Your task to perform on an android device: turn on improve location accuracy Image 0: 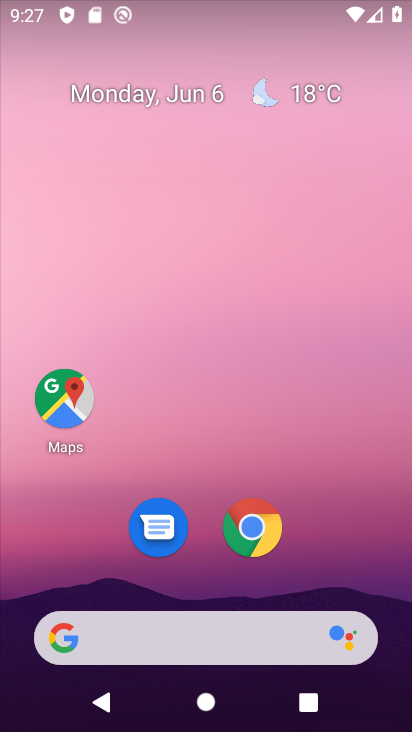
Step 0: drag from (215, 605) to (151, 127)
Your task to perform on an android device: turn on improve location accuracy Image 1: 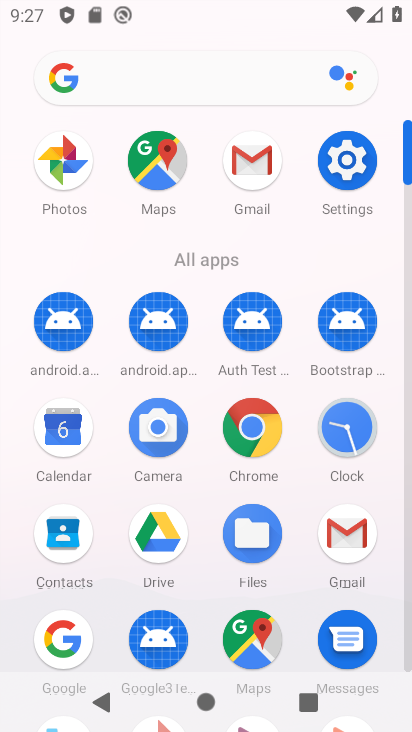
Step 1: click (336, 180)
Your task to perform on an android device: turn on improve location accuracy Image 2: 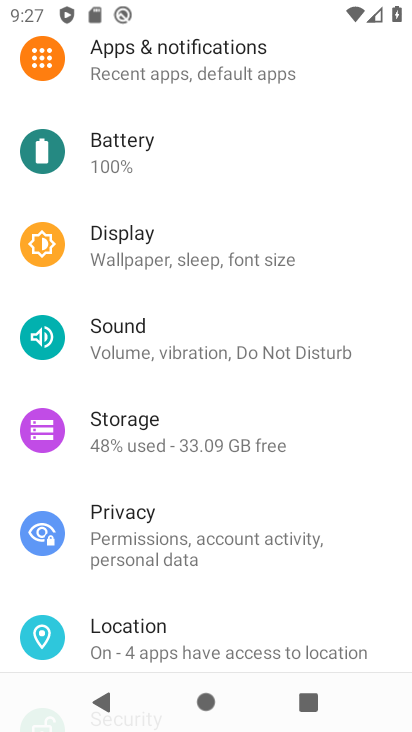
Step 2: click (185, 502)
Your task to perform on an android device: turn on improve location accuracy Image 3: 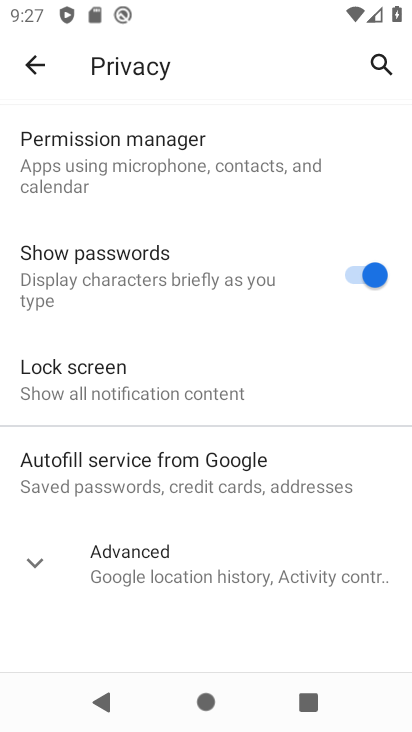
Step 3: click (35, 61)
Your task to perform on an android device: turn on improve location accuracy Image 4: 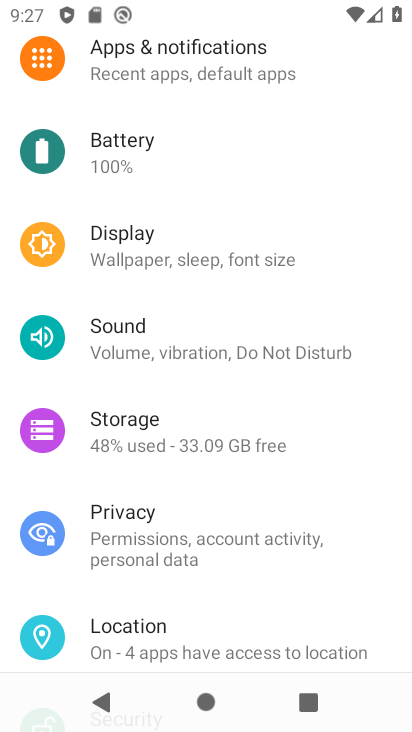
Step 4: click (110, 630)
Your task to perform on an android device: turn on improve location accuracy Image 5: 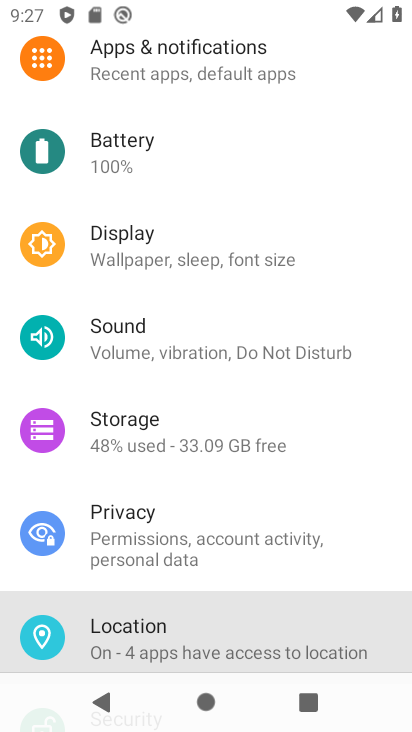
Step 5: click (110, 630)
Your task to perform on an android device: turn on improve location accuracy Image 6: 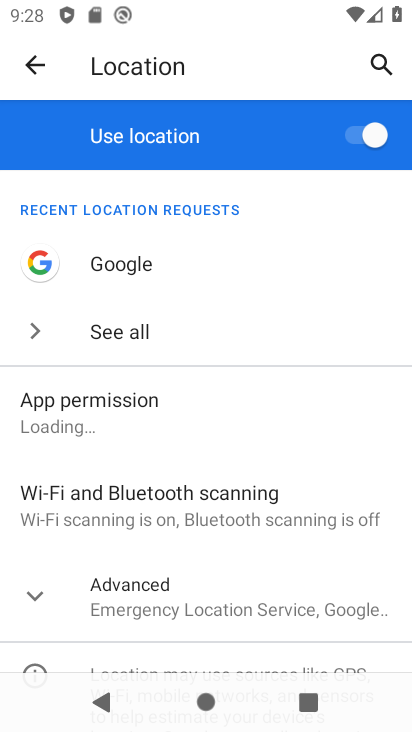
Step 6: click (128, 614)
Your task to perform on an android device: turn on improve location accuracy Image 7: 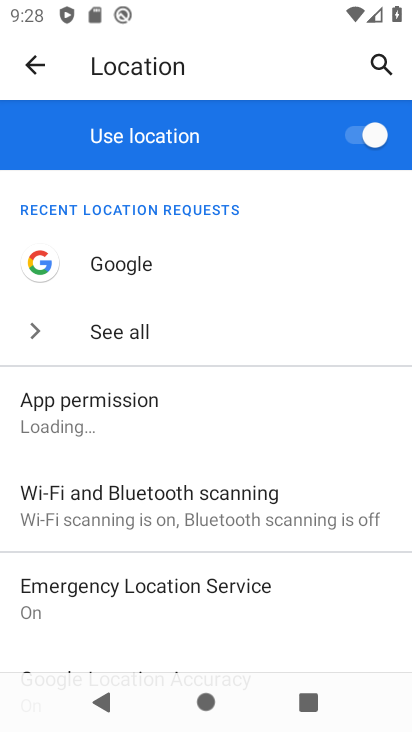
Step 7: drag from (150, 644) to (154, 237)
Your task to perform on an android device: turn on improve location accuracy Image 8: 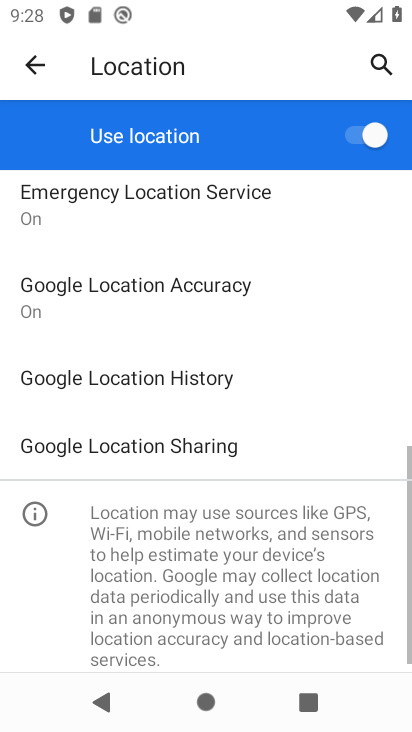
Step 8: click (143, 277)
Your task to perform on an android device: turn on improve location accuracy Image 9: 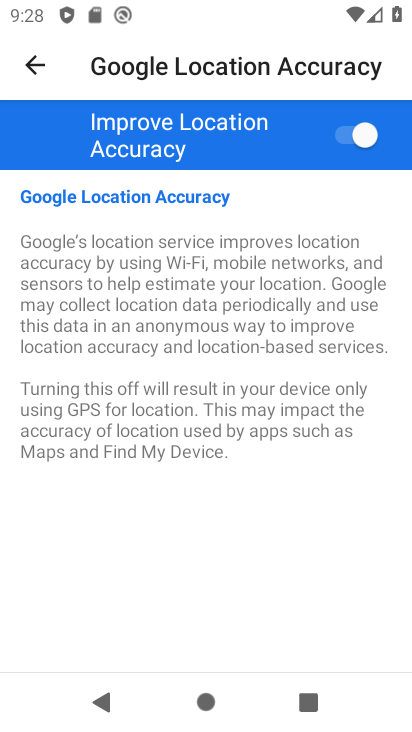
Step 9: task complete